Your task to perform on an android device: Search for razer naga on target.com, select the first entry, and add it to the cart. Image 0: 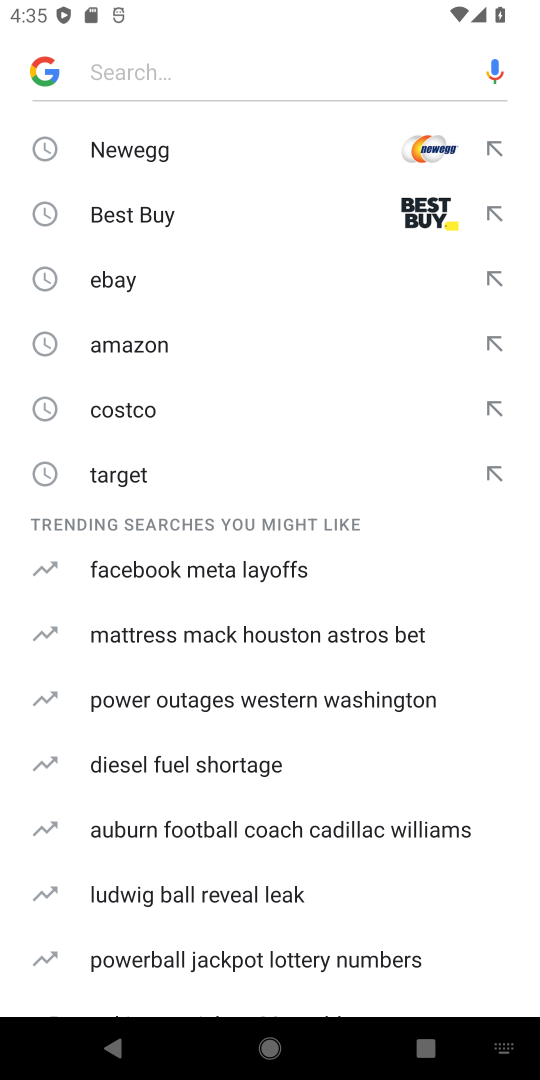
Step 0: press home button
Your task to perform on an android device: Search for razer naga on target.com, select the first entry, and add it to the cart. Image 1: 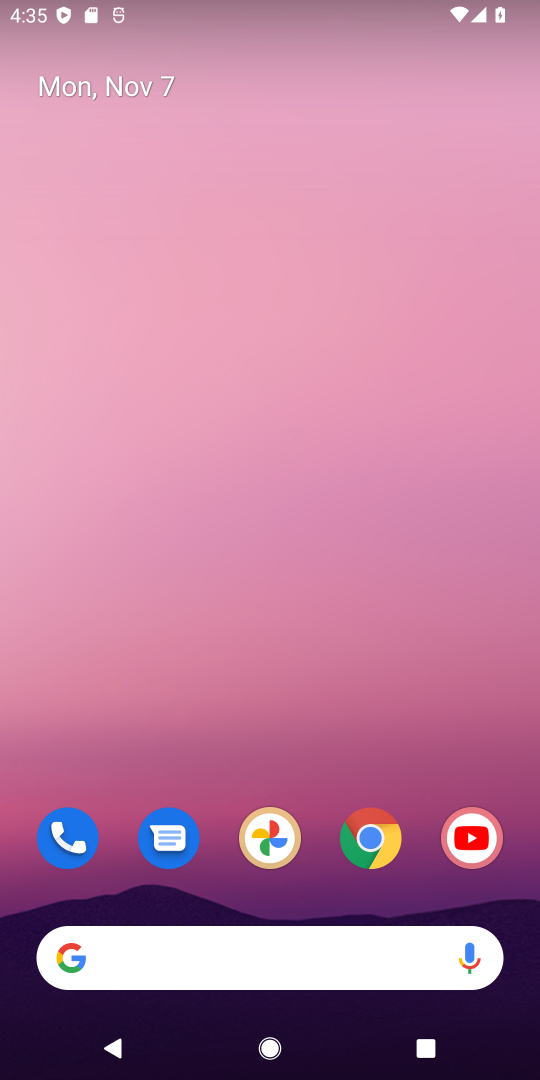
Step 1: click (366, 831)
Your task to perform on an android device: Search for razer naga on target.com, select the first entry, and add it to the cart. Image 2: 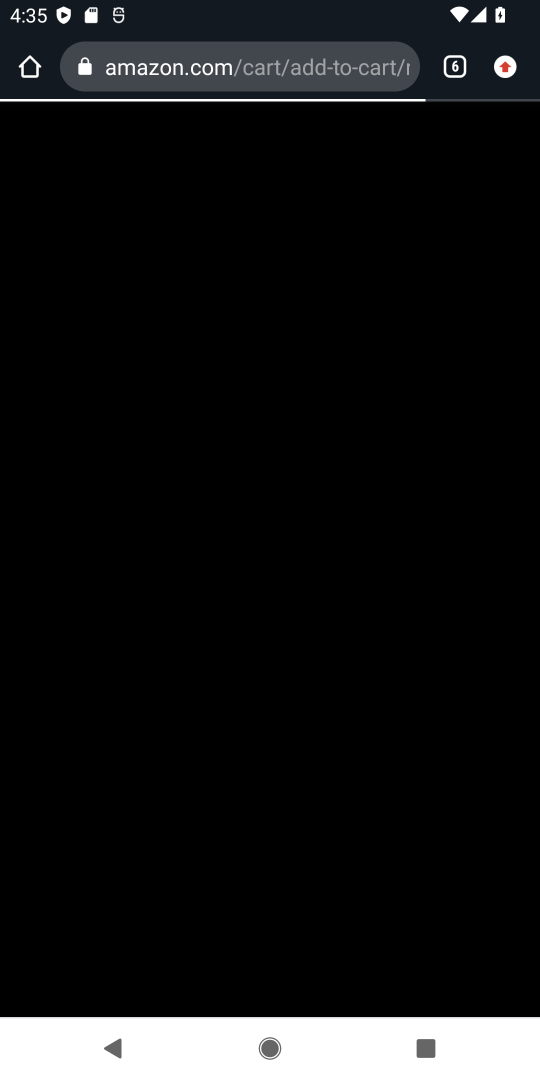
Step 2: click (464, 66)
Your task to perform on an android device: Search for razer naga on target.com, select the first entry, and add it to the cart. Image 3: 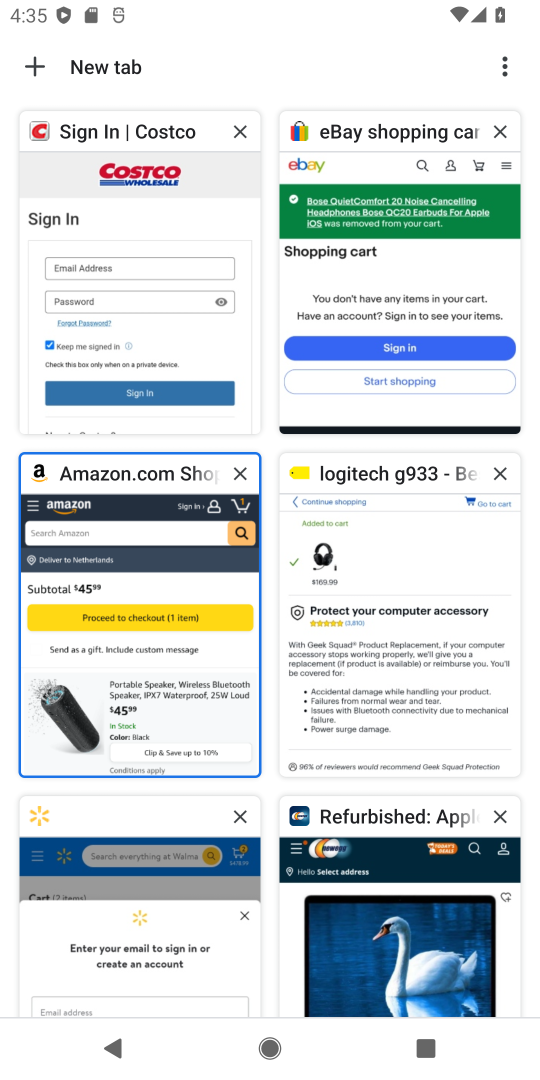
Step 3: click (42, 64)
Your task to perform on an android device: Search for razer naga on target.com, select the first entry, and add it to the cart. Image 4: 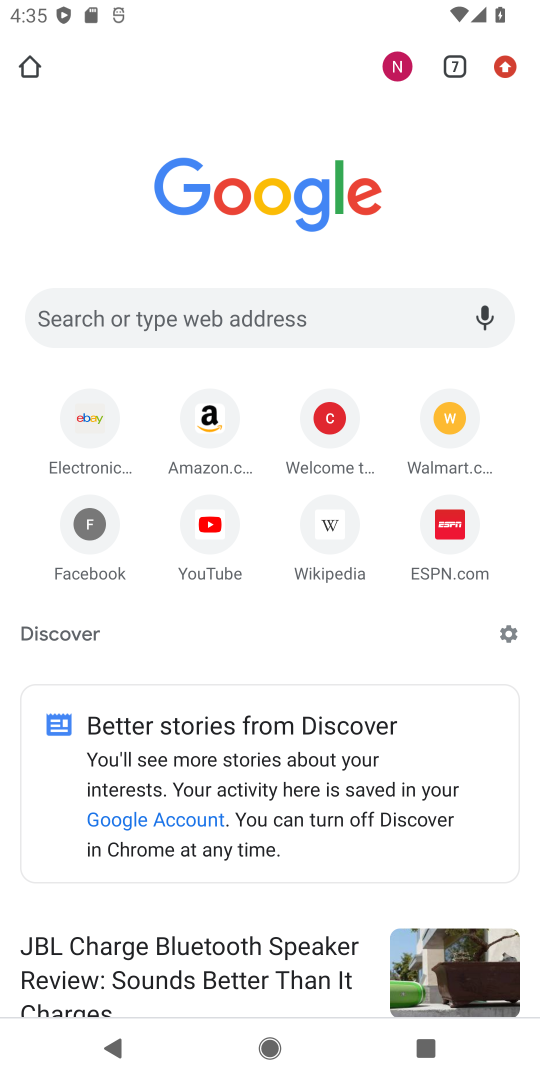
Step 4: click (331, 319)
Your task to perform on an android device: Search for razer naga on target.com, select the first entry, and add it to the cart. Image 5: 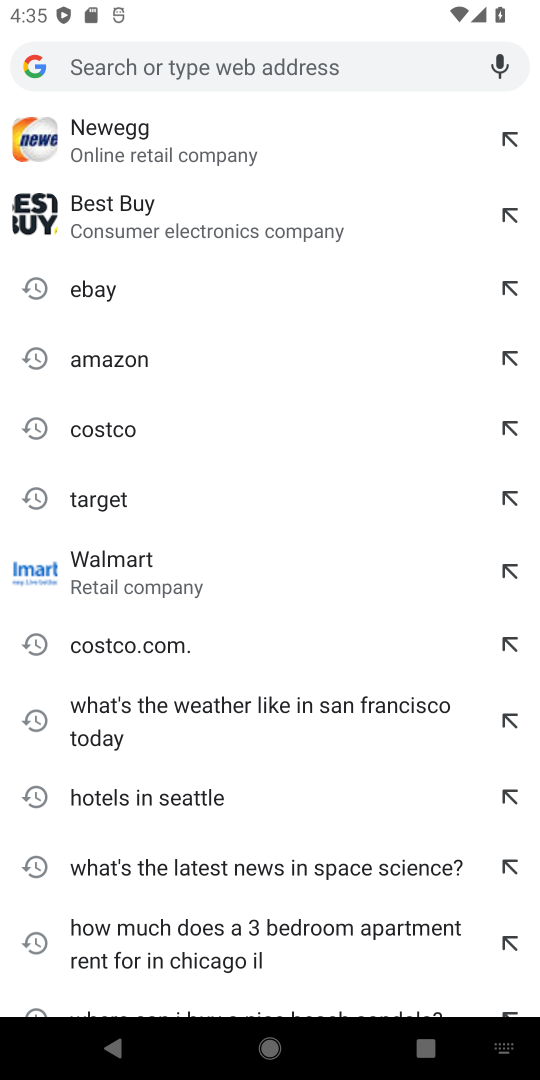
Step 5: click (63, 500)
Your task to perform on an android device: Search for razer naga on target.com, select the first entry, and add it to the cart. Image 6: 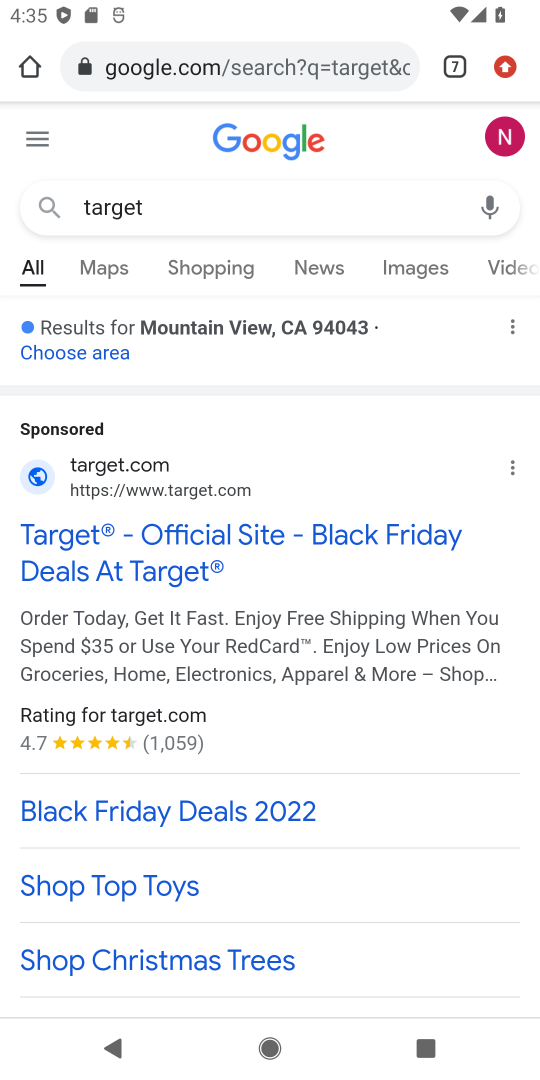
Step 6: drag from (238, 768) to (261, 254)
Your task to perform on an android device: Search for razer naga on target.com, select the first entry, and add it to the cart. Image 7: 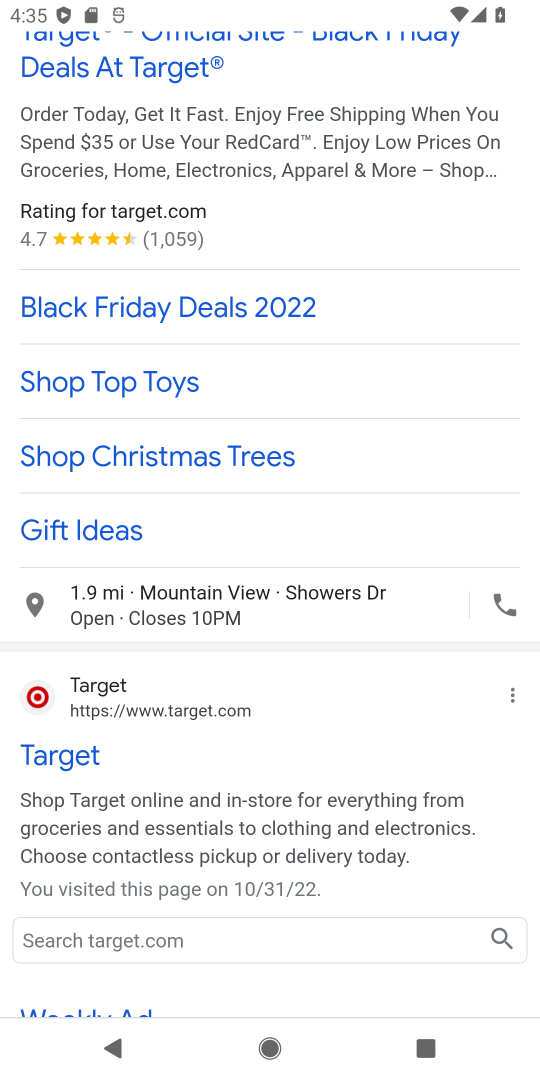
Step 7: drag from (117, 972) to (233, 263)
Your task to perform on an android device: Search for razer naga on target.com, select the first entry, and add it to the cart. Image 8: 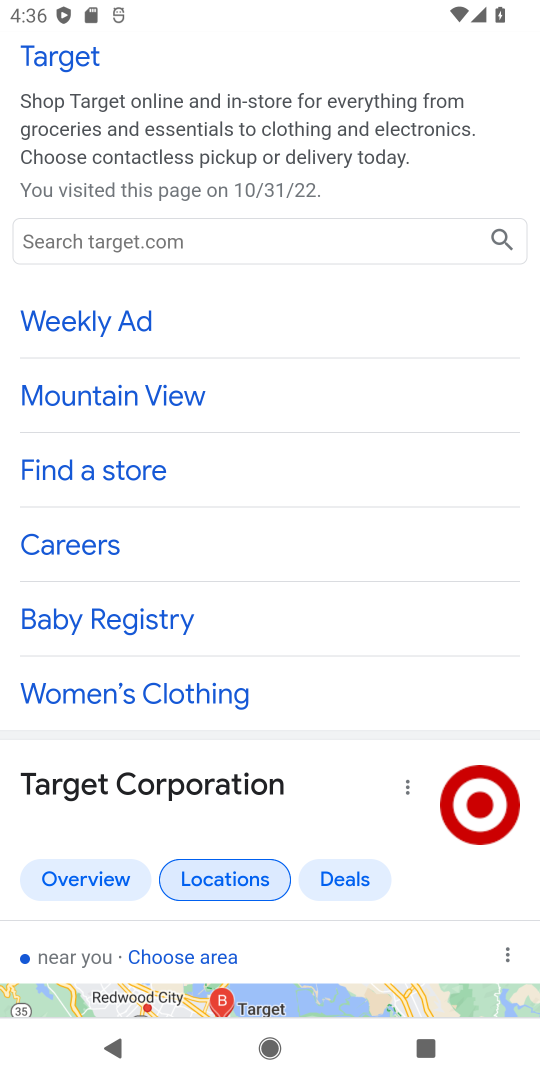
Step 8: click (93, 232)
Your task to perform on an android device: Search for razer naga on target.com, select the first entry, and add it to the cart. Image 9: 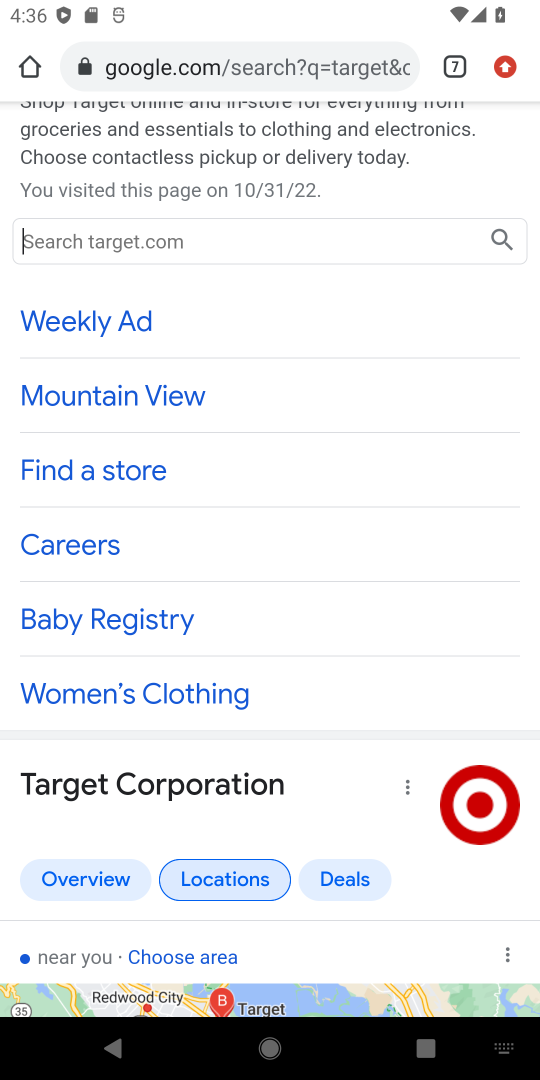
Step 9: type "razer naga"
Your task to perform on an android device: Search for razer naga on target.com, select the first entry, and add it to the cart. Image 10: 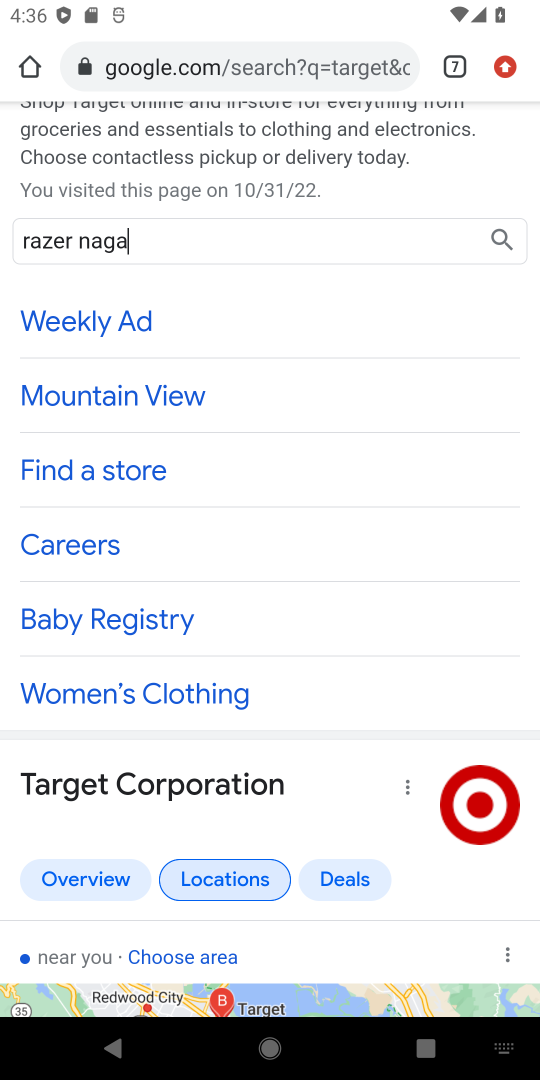
Step 10: click (501, 233)
Your task to perform on an android device: Search for razer naga on target.com, select the first entry, and add it to the cart. Image 11: 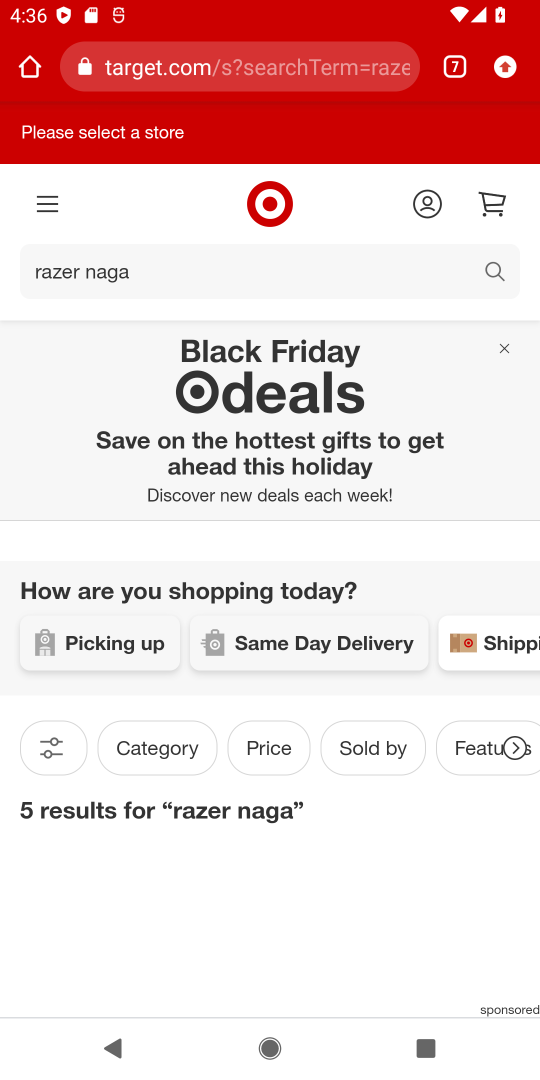
Step 11: drag from (290, 678) to (414, 101)
Your task to perform on an android device: Search for razer naga on target.com, select the first entry, and add it to the cart. Image 12: 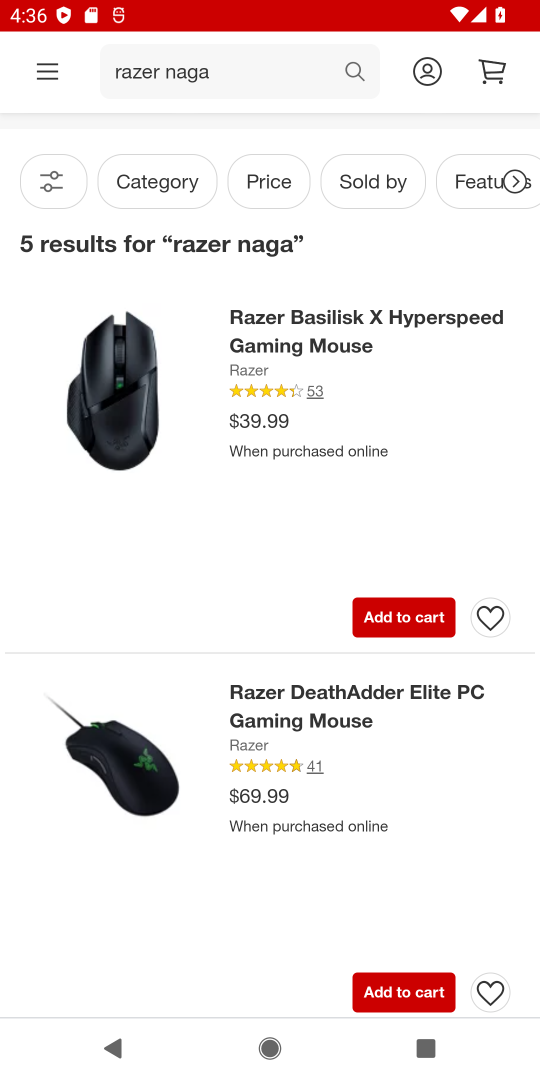
Step 12: click (408, 616)
Your task to perform on an android device: Search for razer naga on target.com, select the first entry, and add it to the cart. Image 13: 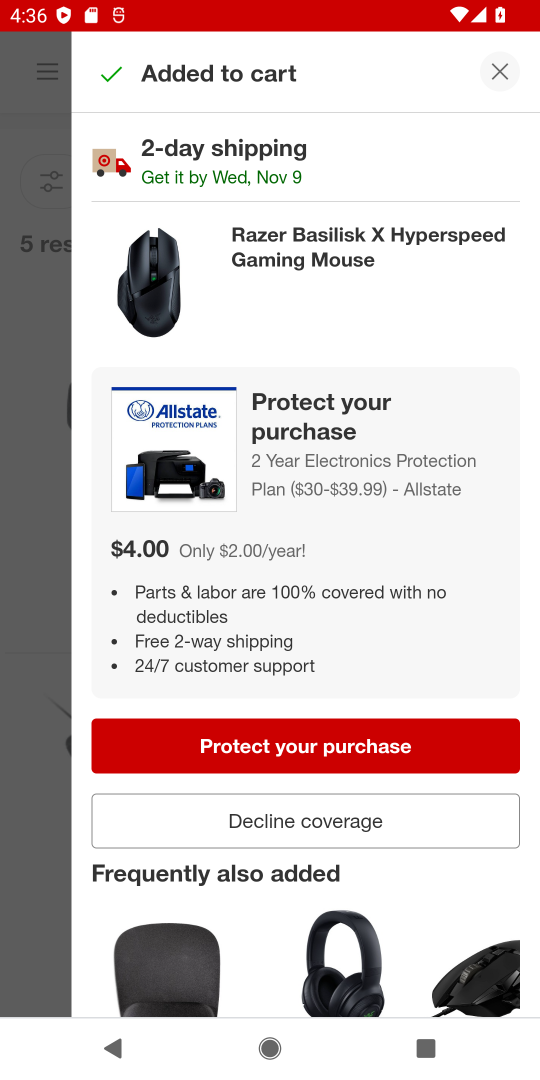
Step 13: click (218, 825)
Your task to perform on an android device: Search for razer naga on target.com, select the first entry, and add it to the cart. Image 14: 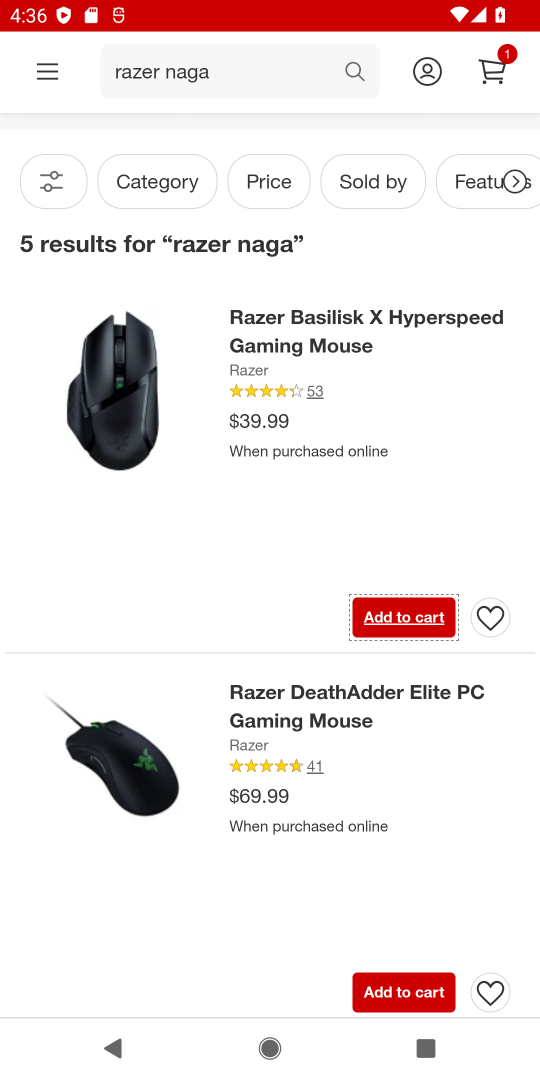
Step 14: task complete